Your task to perform on an android device: change notification settings in the gmail app Image 0: 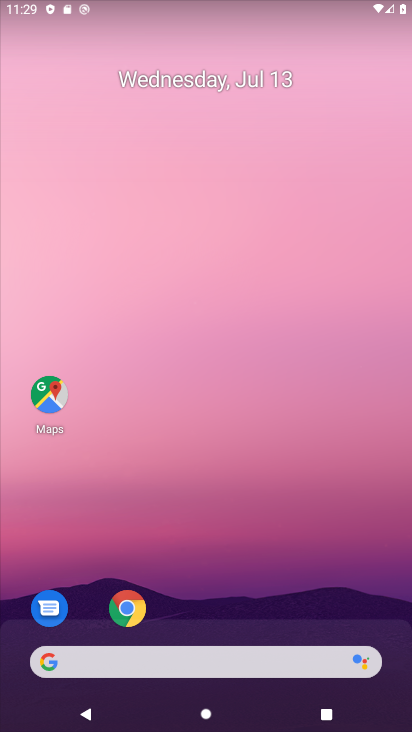
Step 0: drag from (153, 715) to (294, 6)
Your task to perform on an android device: change notification settings in the gmail app Image 1: 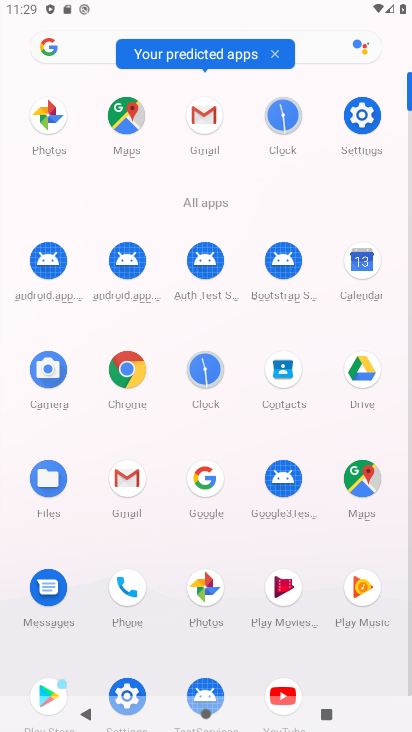
Step 1: click (213, 122)
Your task to perform on an android device: change notification settings in the gmail app Image 2: 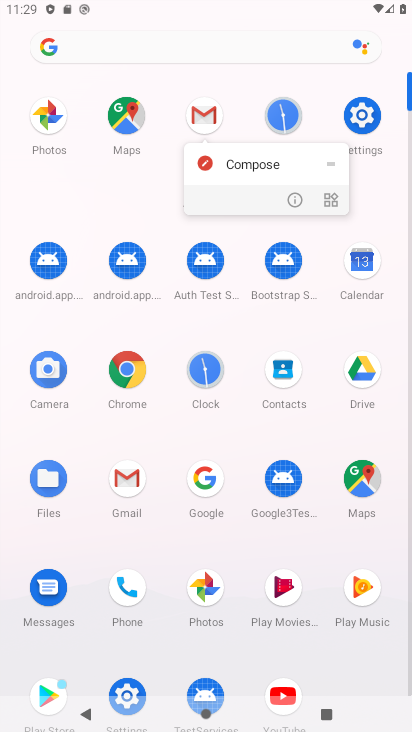
Step 2: click (292, 197)
Your task to perform on an android device: change notification settings in the gmail app Image 3: 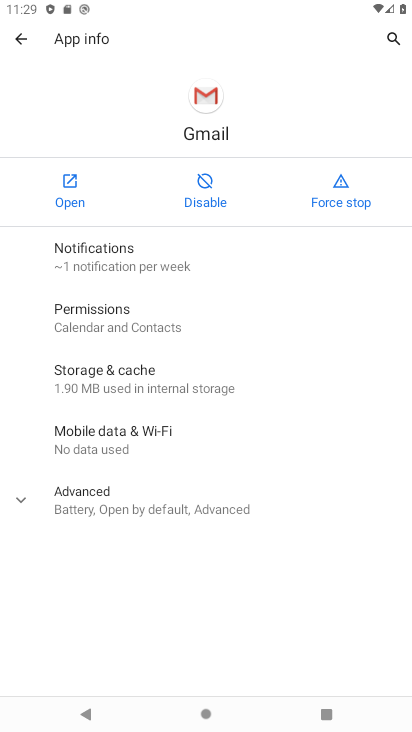
Step 3: click (208, 250)
Your task to perform on an android device: change notification settings in the gmail app Image 4: 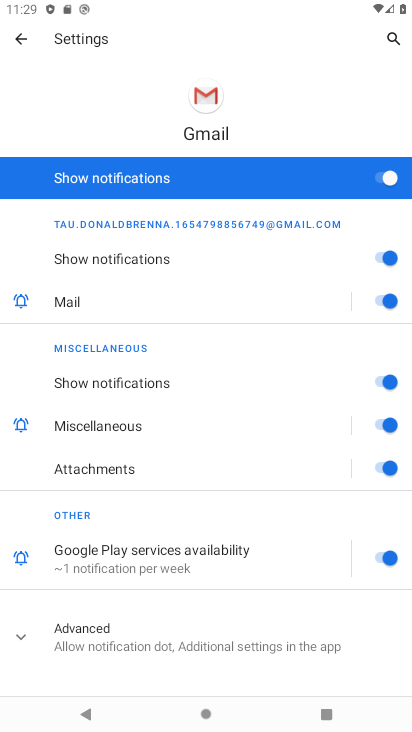
Step 4: click (385, 173)
Your task to perform on an android device: change notification settings in the gmail app Image 5: 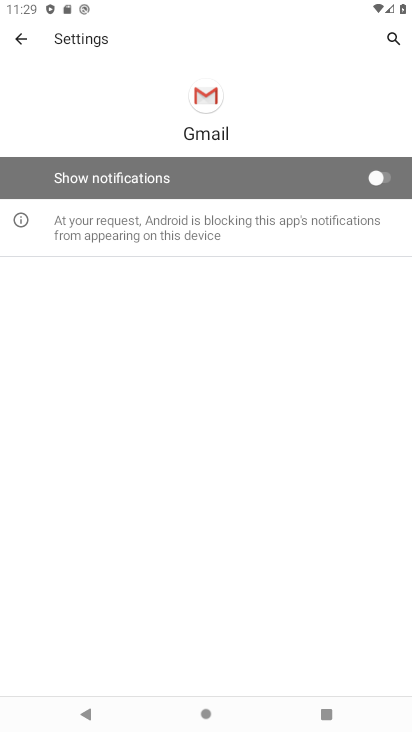
Step 5: task complete